Your task to perform on an android device: remove spam from my inbox in the gmail app Image 0: 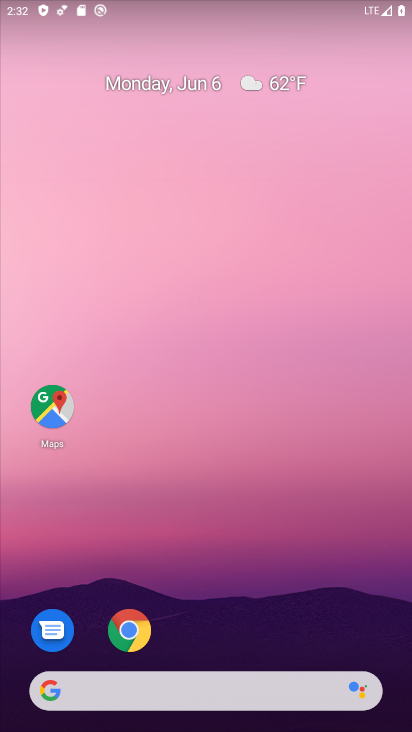
Step 0: drag from (285, 623) to (339, 0)
Your task to perform on an android device: remove spam from my inbox in the gmail app Image 1: 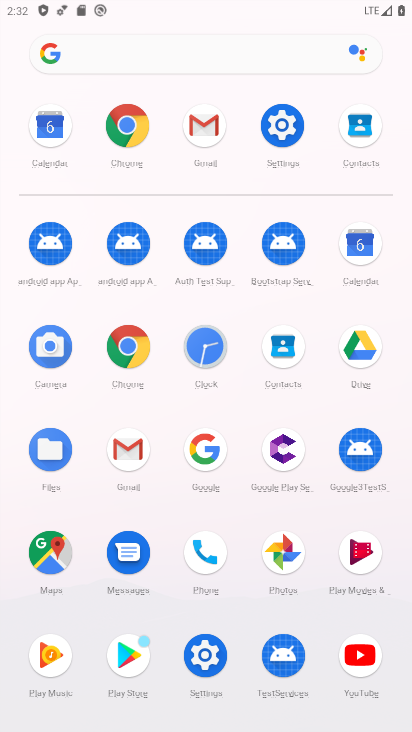
Step 1: click (220, 142)
Your task to perform on an android device: remove spam from my inbox in the gmail app Image 2: 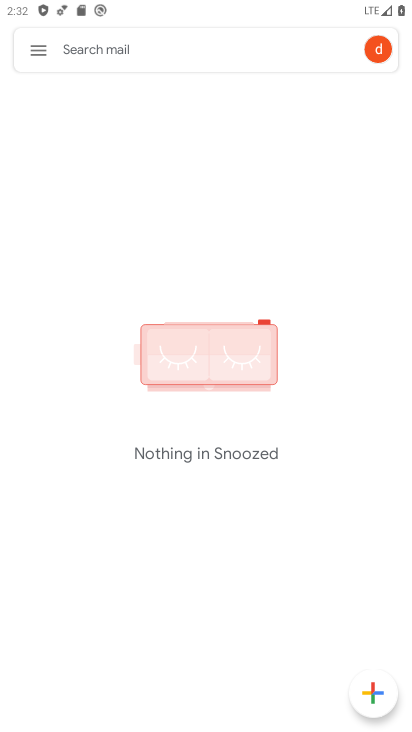
Step 2: task complete